Your task to perform on an android device: Go to display settings Image 0: 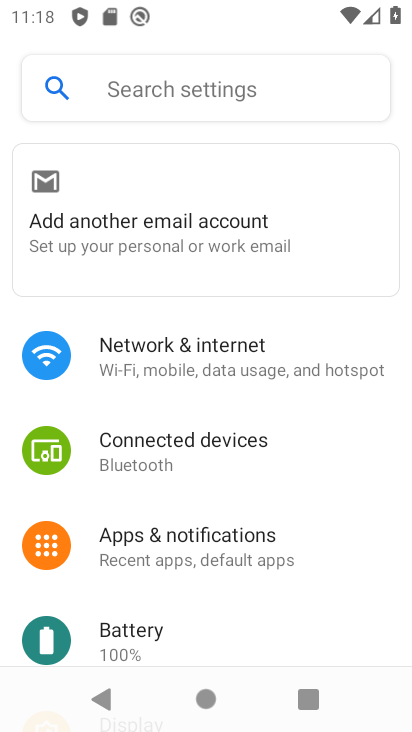
Step 0: press home button
Your task to perform on an android device: Go to display settings Image 1: 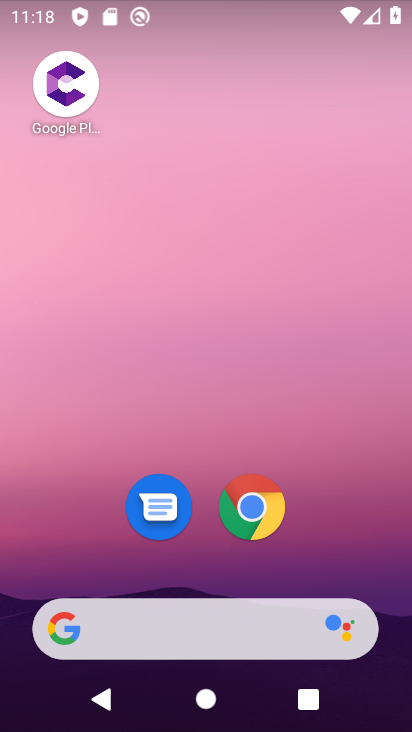
Step 1: drag from (375, 561) to (350, 124)
Your task to perform on an android device: Go to display settings Image 2: 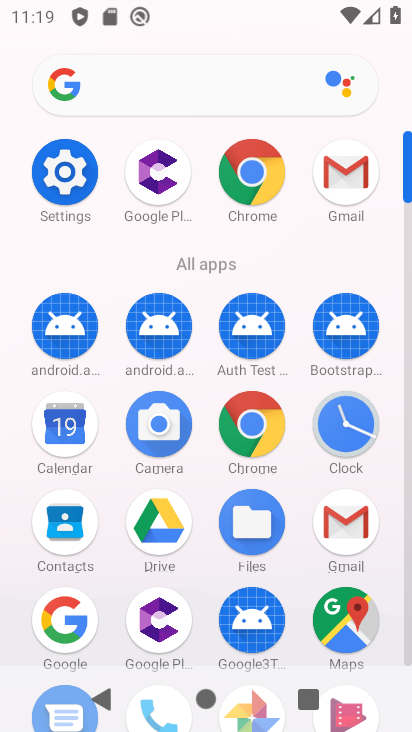
Step 2: drag from (305, 569) to (295, 326)
Your task to perform on an android device: Go to display settings Image 3: 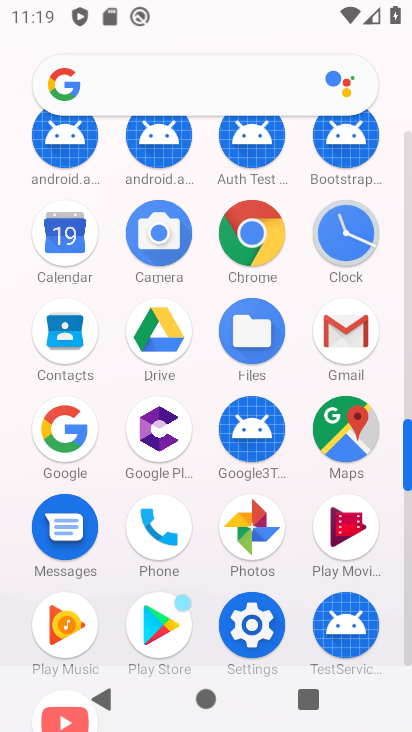
Step 3: click (231, 644)
Your task to perform on an android device: Go to display settings Image 4: 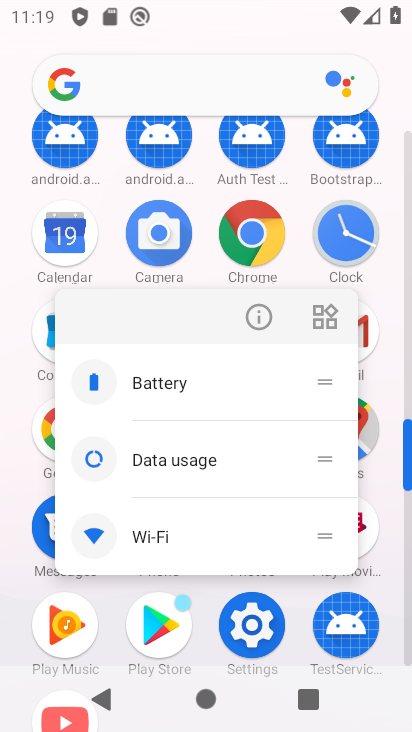
Step 4: click (245, 651)
Your task to perform on an android device: Go to display settings Image 5: 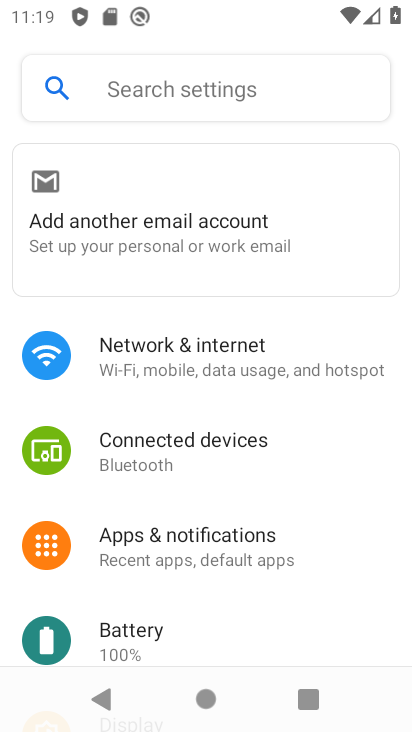
Step 5: drag from (235, 598) to (235, 298)
Your task to perform on an android device: Go to display settings Image 6: 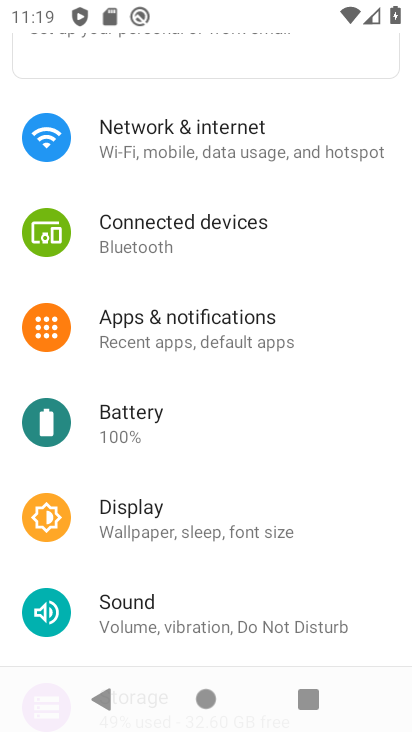
Step 6: click (155, 528)
Your task to perform on an android device: Go to display settings Image 7: 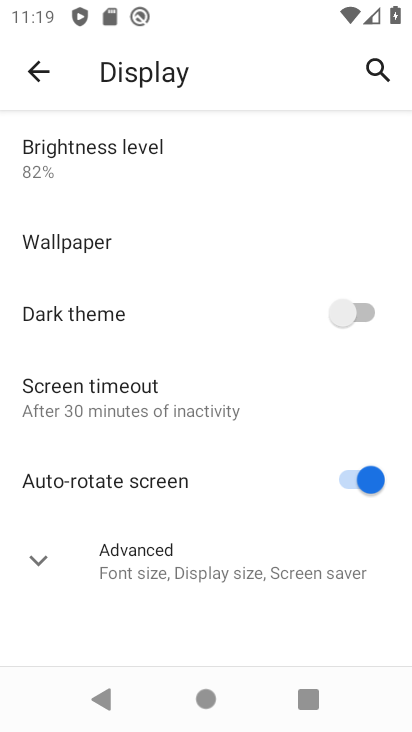
Step 7: task complete